Your task to perform on an android device: turn on improve location accuracy Image 0: 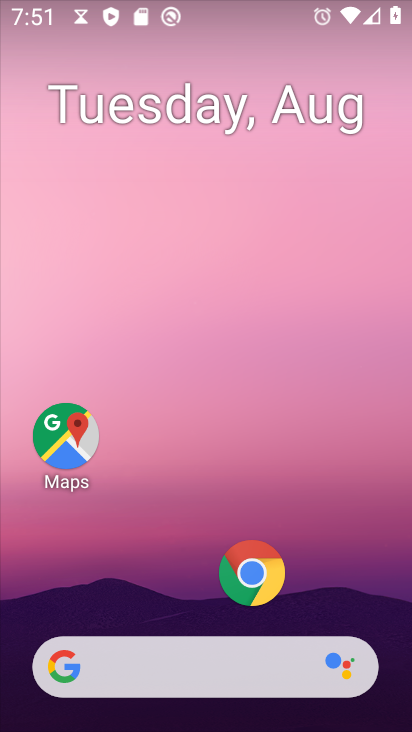
Step 0: press home button
Your task to perform on an android device: turn on improve location accuracy Image 1: 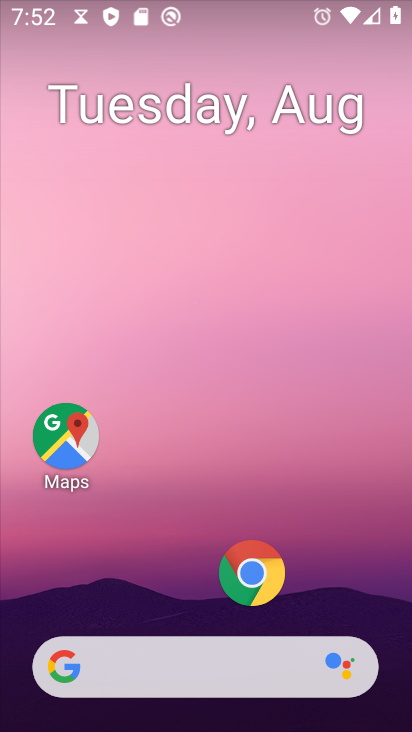
Step 1: drag from (198, 608) to (231, 39)
Your task to perform on an android device: turn on improve location accuracy Image 2: 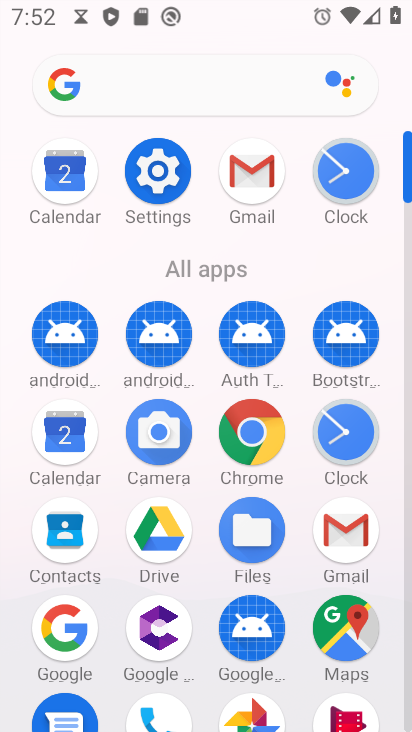
Step 2: click (153, 162)
Your task to perform on an android device: turn on improve location accuracy Image 3: 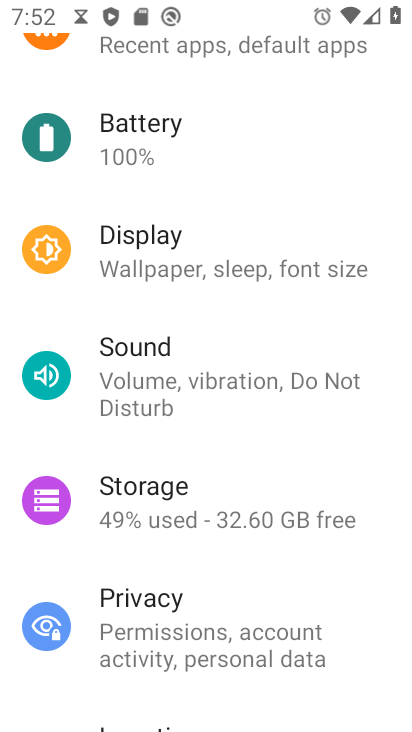
Step 3: drag from (199, 697) to (223, 102)
Your task to perform on an android device: turn on improve location accuracy Image 4: 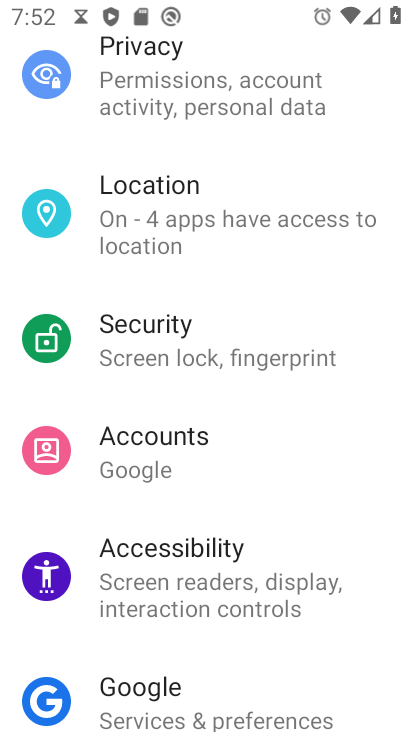
Step 4: click (209, 190)
Your task to perform on an android device: turn on improve location accuracy Image 5: 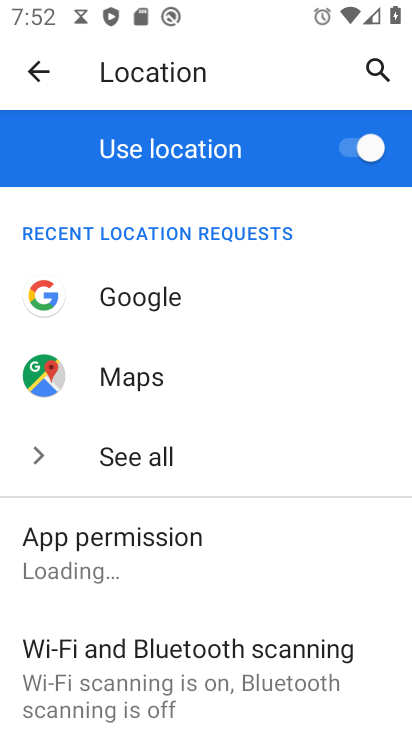
Step 5: drag from (220, 697) to (221, 187)
Your task to perform on an android device: turn on improve location accuracy Image 6: 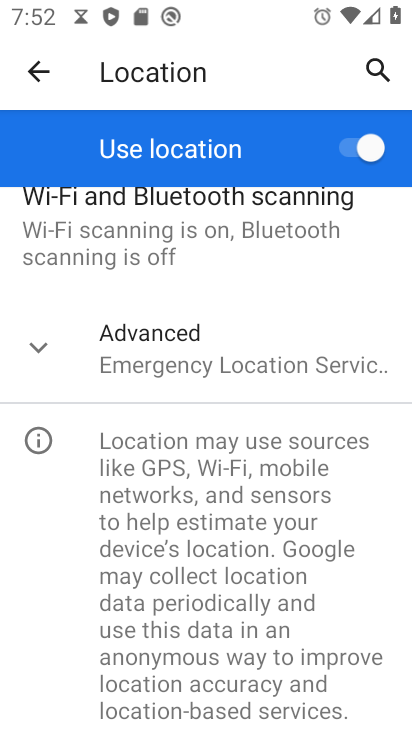
Step 6: click (43, 338)
Your task to perform on an android device: turn on improve location accuracy Image 7: 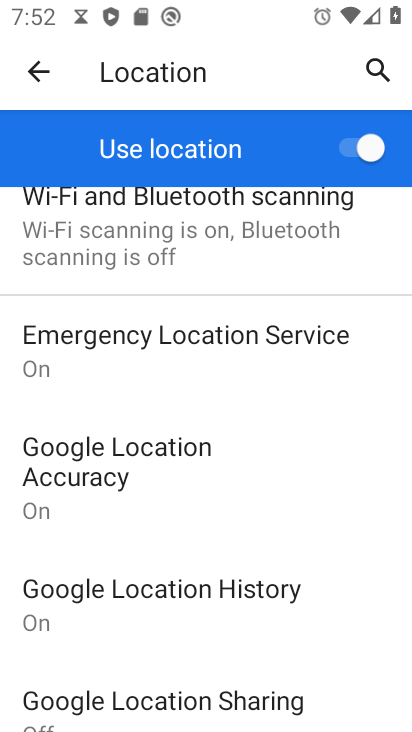
Step 7: click (143, 471)
Your task to perform on an android device: turn on improve location accuracy Image 8: 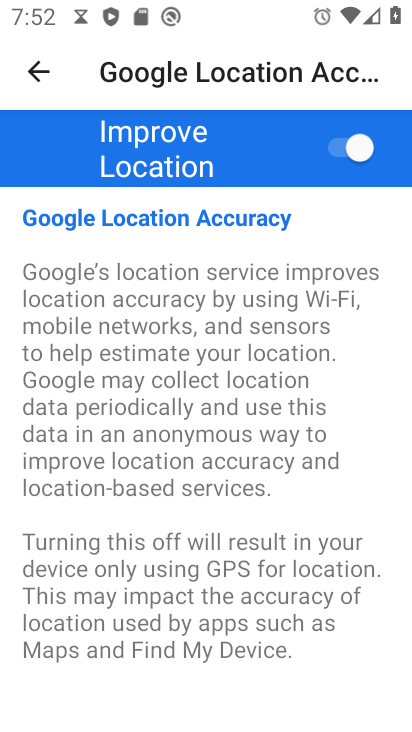
Step 8: task complete